Your task to perform on an android device: turn on translation in the chrome app Image 0: 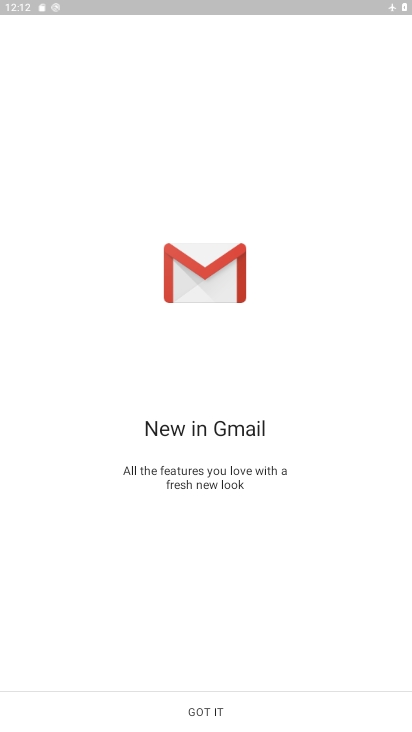
Step 0: press home button
Your task to perform on an android device: turn on translation in the chrome app Image 1: 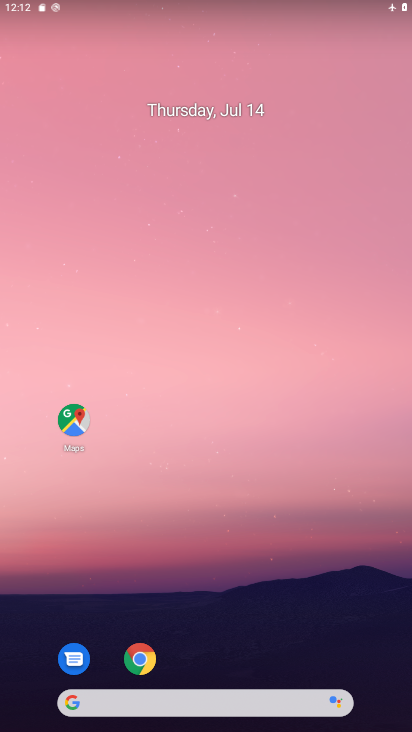
Step 1: drag from (257, 413) to (243, 19)
Your task to perform on an android device: turn on translation in the chrome app Image 2: 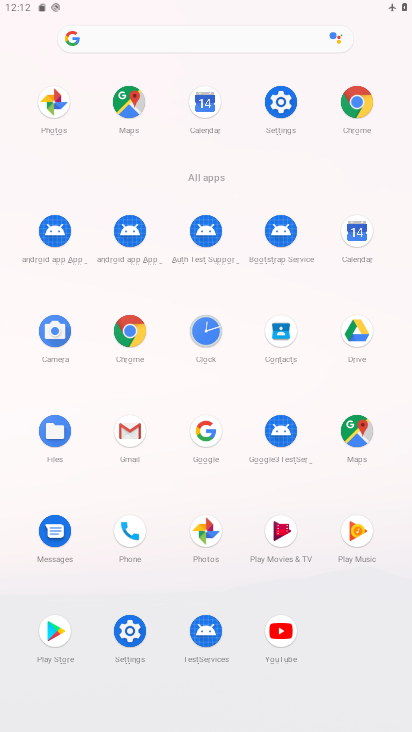
Step 2: click (356, 105)
Your task to perform on an android device: turn on translation in the chrome app Image 3: 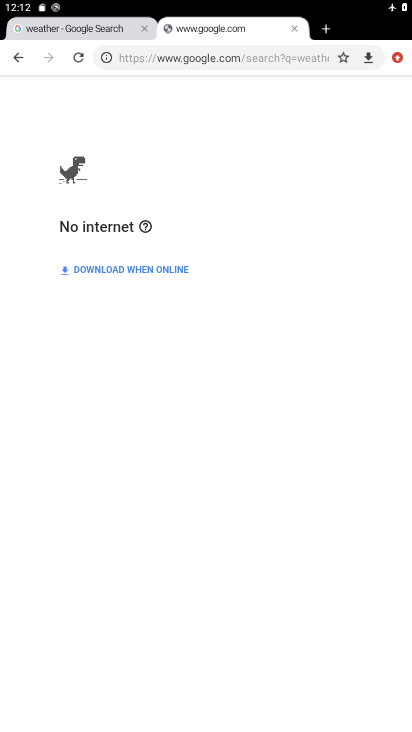
Step 3: drag from (406, 55) to (286, 379)
Your task to perform on an android device: turn on translation in the chrome app Image 4: 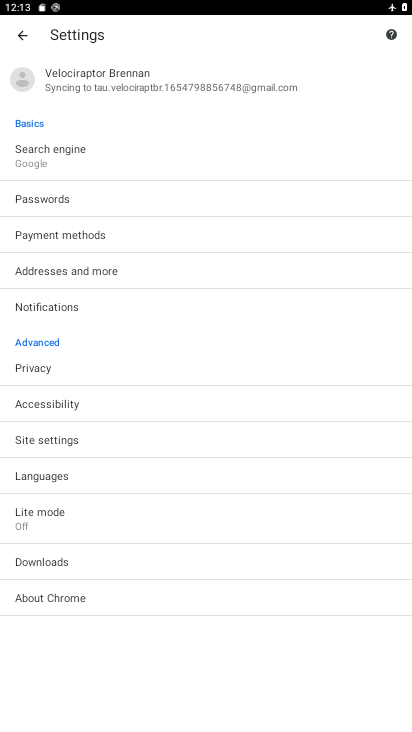
Step 4: click (58, 508)
Your task to perform on an android device: turn on translation in the chrome app Image 5: 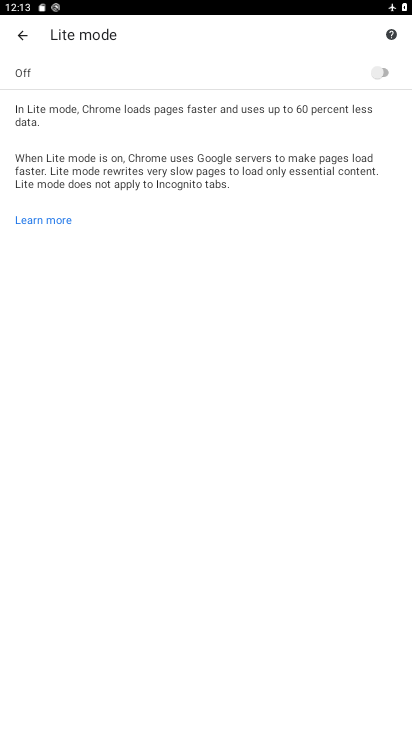
Step 5: click (25, 37)
Your task to perform on an android device: turn on translation in the chrome app Image 6: 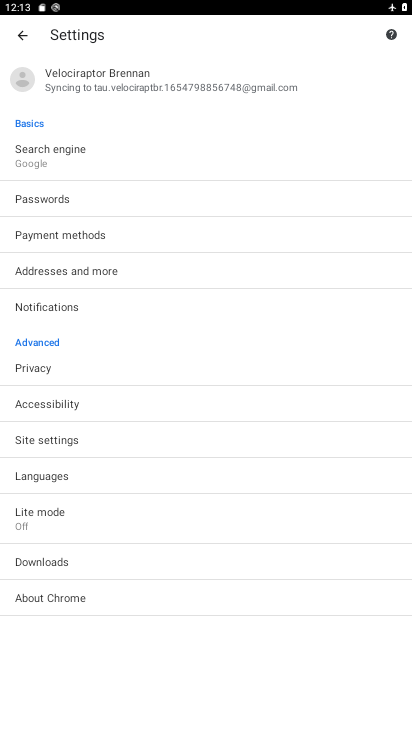
Step 6: click (62, 477)
Your task to perform on an android device: turn on translation in the chrome app Image 7: 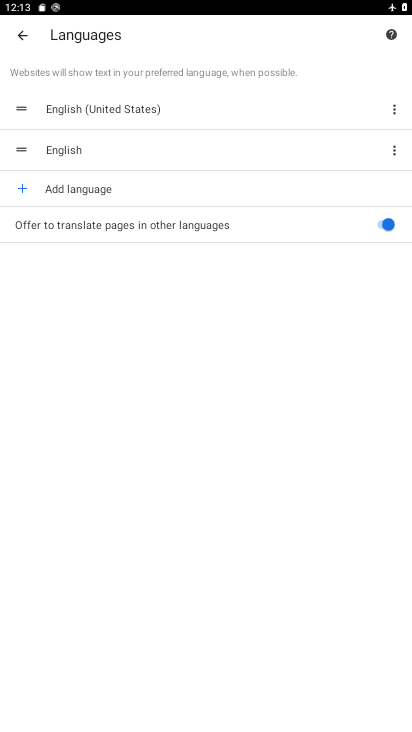
Step 7: task complete